Your task to perform on an android device: Go to Google Image 0: 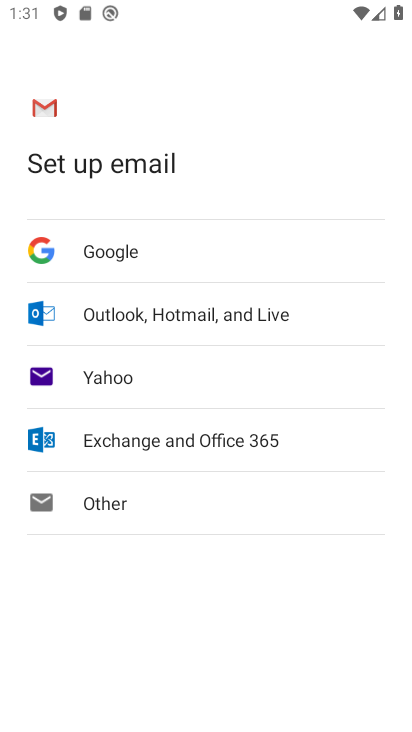
Step 0: press home button
Your task to perform on an android device: Go to Google Image 1: 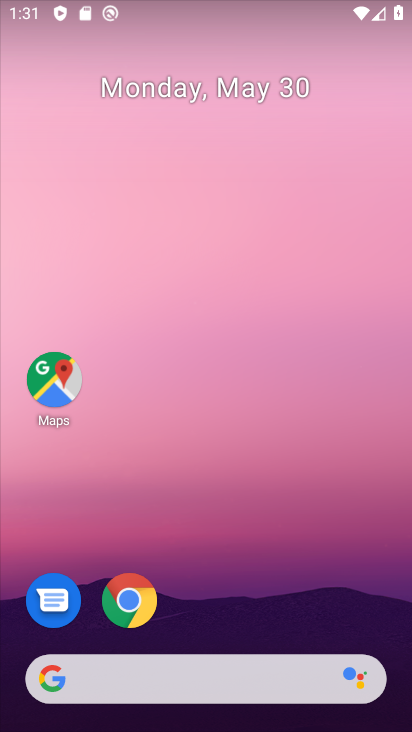
Step 1: click (158, 673)
Your task to perform on an android device: Go to Google Image 2: 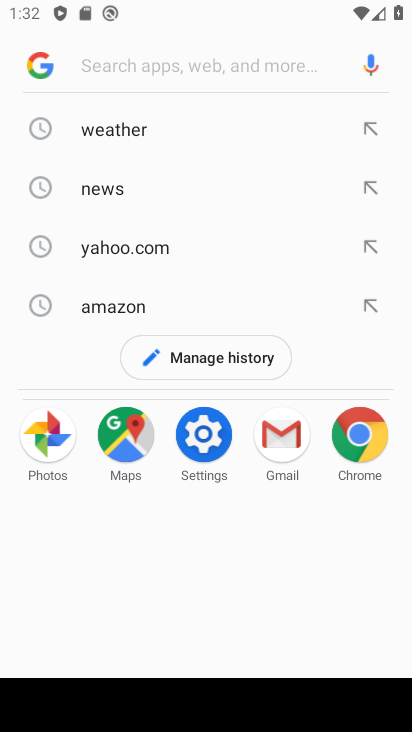
Step 2: task complete